Your task to perform on an android device: find snoozed emails in the gmail app Image 0: 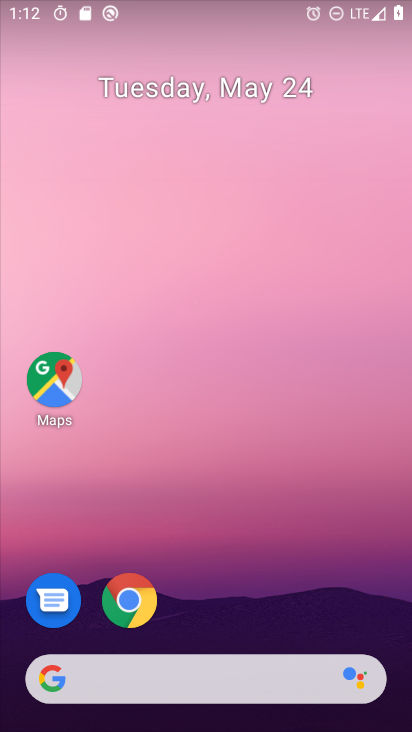
Step 0: drag from (368, 565) to (384, 111)
Your task to perform on an android device: find snoozed emails in the gmail app Image 1: 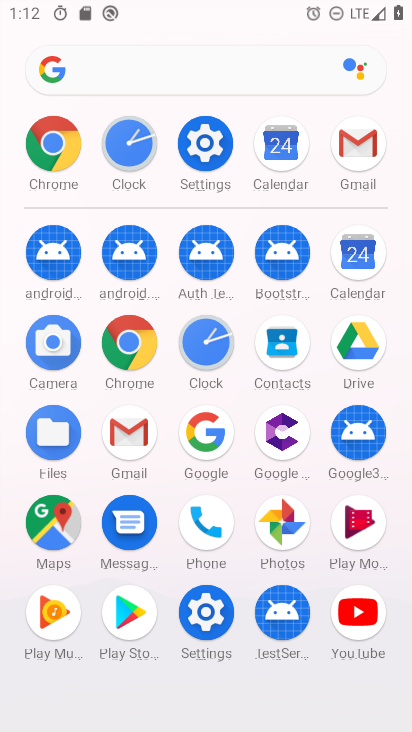
Step 1: click (342, 150)
Your task to perform on an android device: find snoozed emails in the gmail app Image 2: 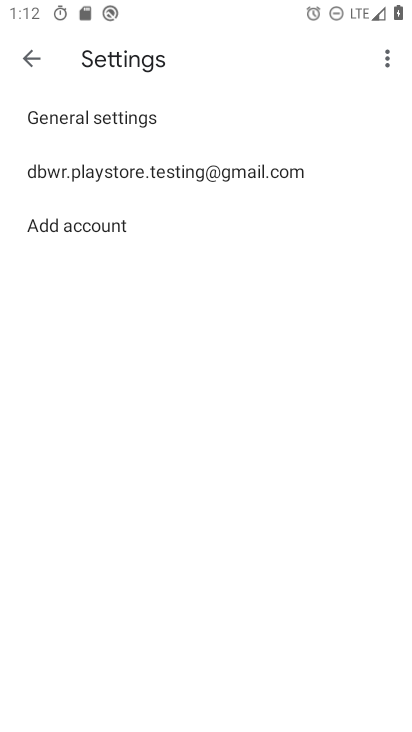
Step 2: click (30, 68)
Your task to perform on an android device: find snoozed emails in the gmail app Image 3: 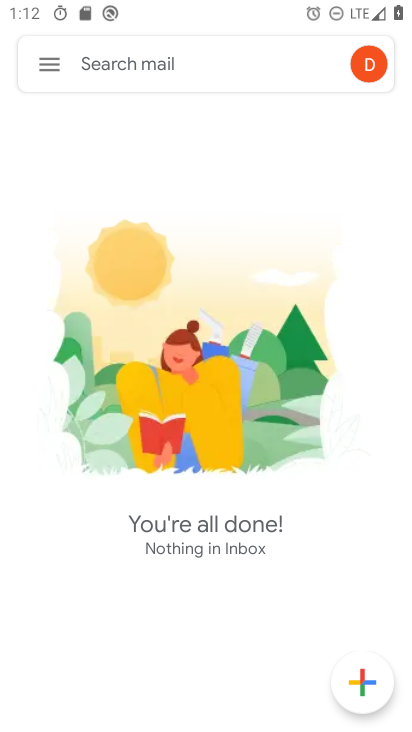
Step 3: click (54, 63)
Your task to perform on an android device: find snoozed emails in the gmail app Image 4: 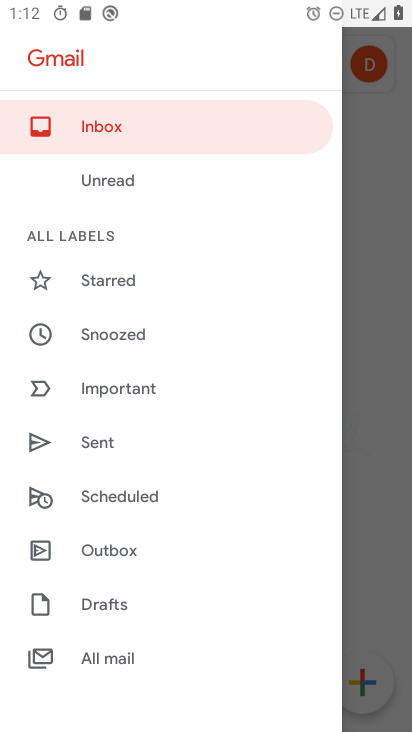
Step 4: click (140, 329)
Your task to perform on an android device: find snoozed emails in the gmail app Image 5: 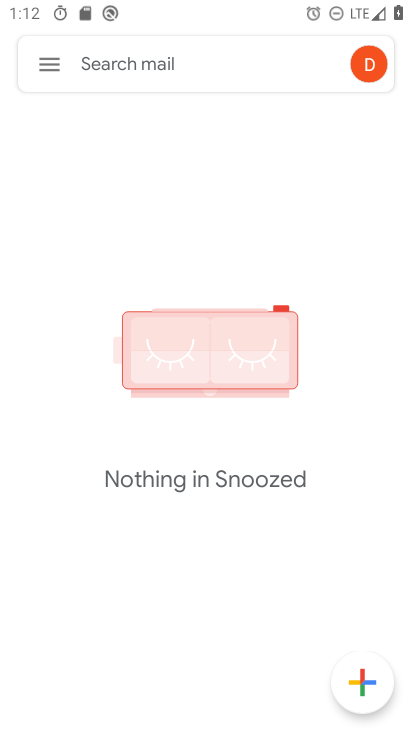
Step 5: task complete